Your task to perform on an android device: turn off wifi Image 0: 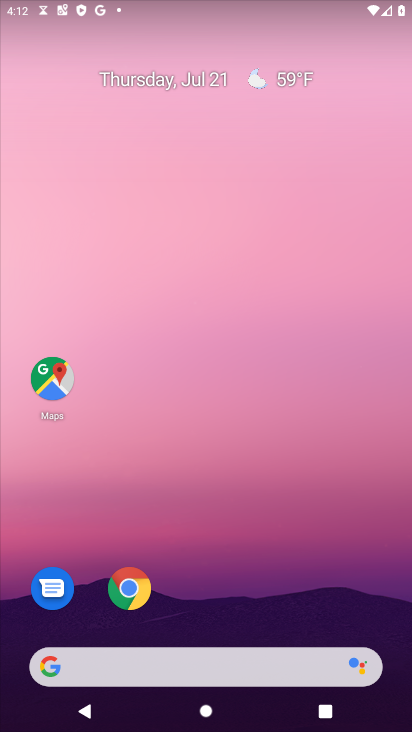
Step 0: drag from (231, 724) to (243, 45)
Your task to perform on an android device: turn off wifi Image 1: 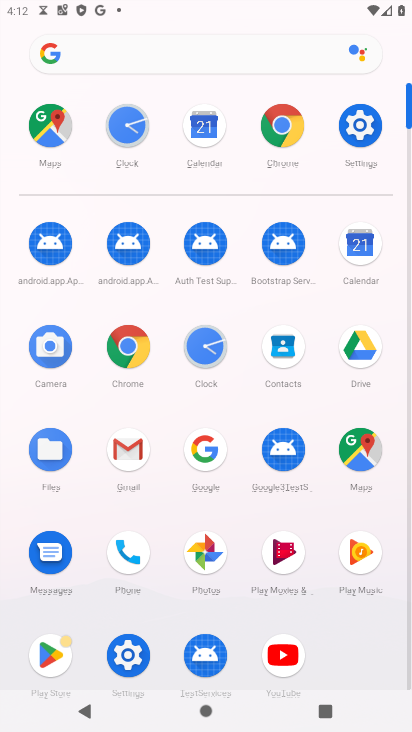
Step 1: click (362, 133)
Your task to perform on an android device: turn off wifi Image 2: 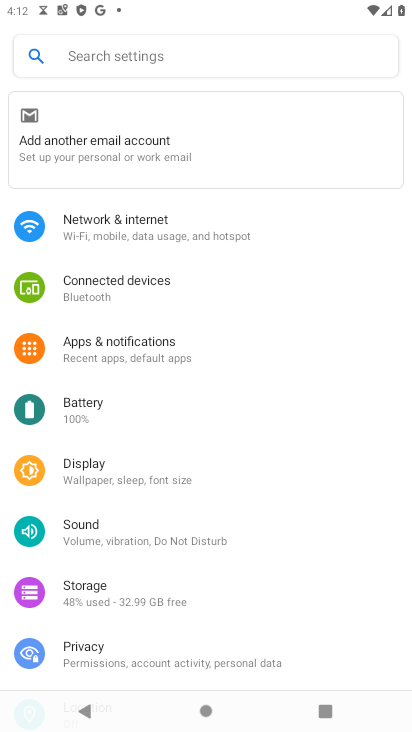
Step 2: click (120, 220)
Your task to perform on an android device: turn off wifi Image 3: 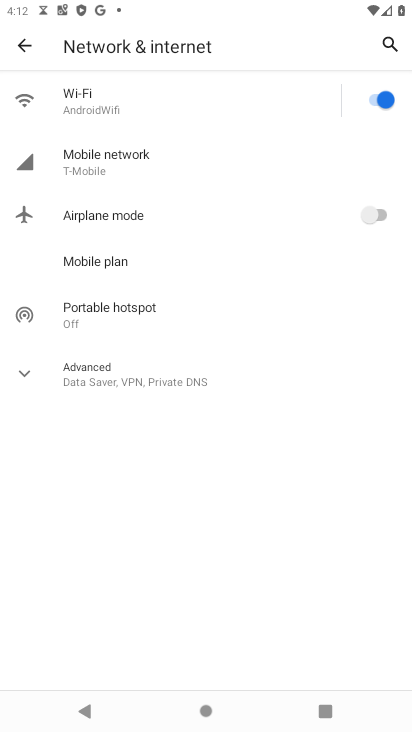
Step 3: click (374, 99)
Your task to perform on an android device: turn off wifi Image 4: 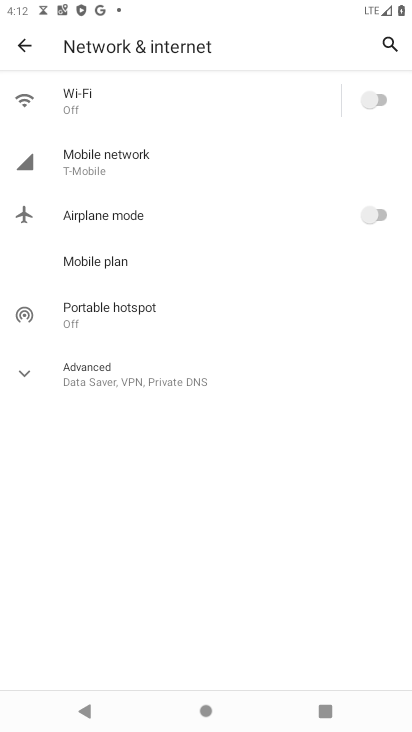
Step 4: task complete